Your task to perform on an android device: Go to Android settings Image 0: 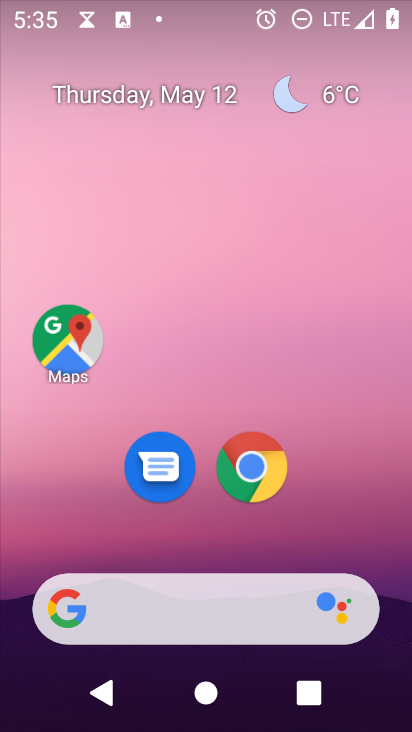
Step 0: drag from (306, 570) to (289, 2)
Your task to perform on an android device: Go to Android settings Image 1: 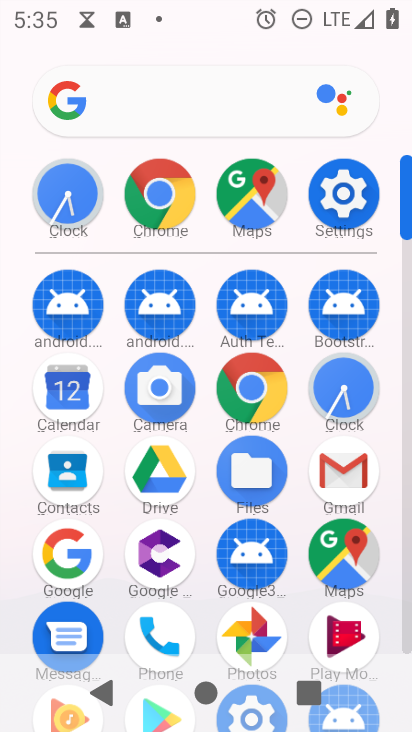
Step 1: click (323, 211)
Your task to perform on an android device: Go to Android settings Image 2: 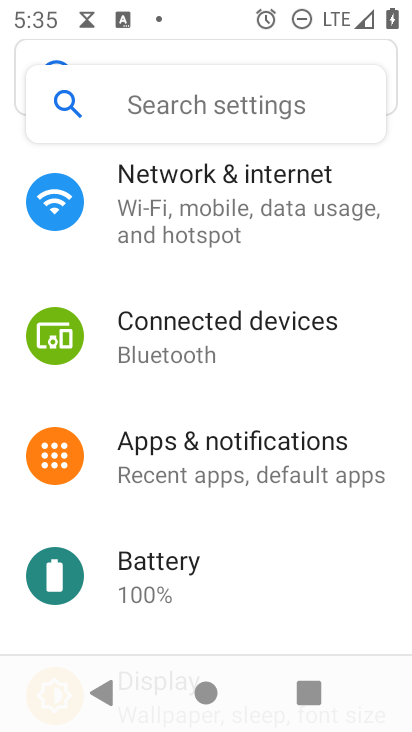
Step 2: drag from (245, 621) to (355, 79)
Your task to perform on an android device: Go to Android settings Image 3: 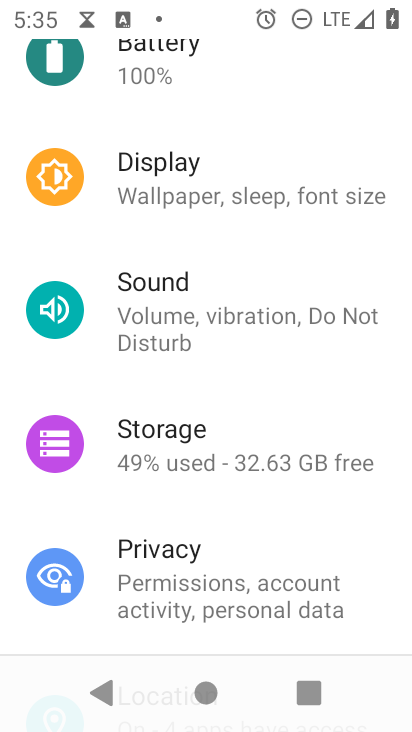
Step 3: drag from (285, 619) to (265, 178)
Your task to perform on an android device: Go to Android settings Image 4: 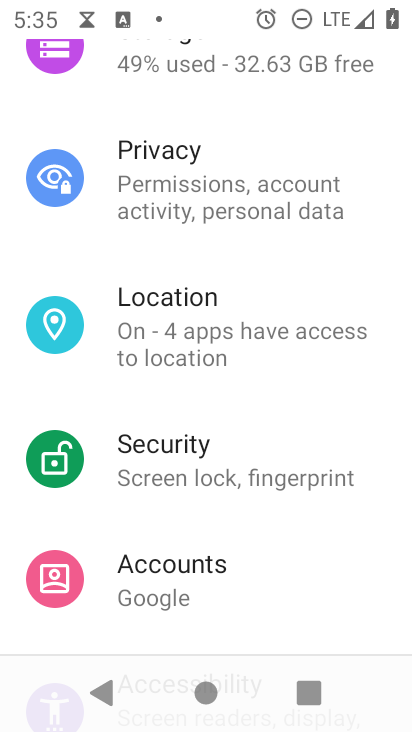
Step 4: drag from (297, 583) to (331, 160)
Your task to perform on an android device: Go to Android settings Image 5: 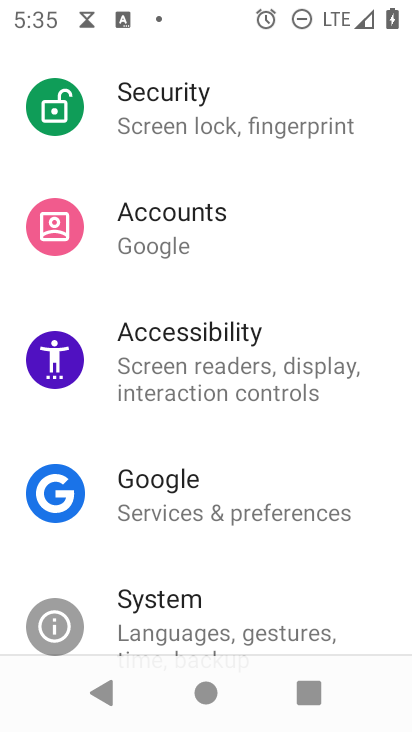
Step 5: drag from (274, 634) to (305, 155)
Your task to perform on an android device: Go to Android settings Image 6: 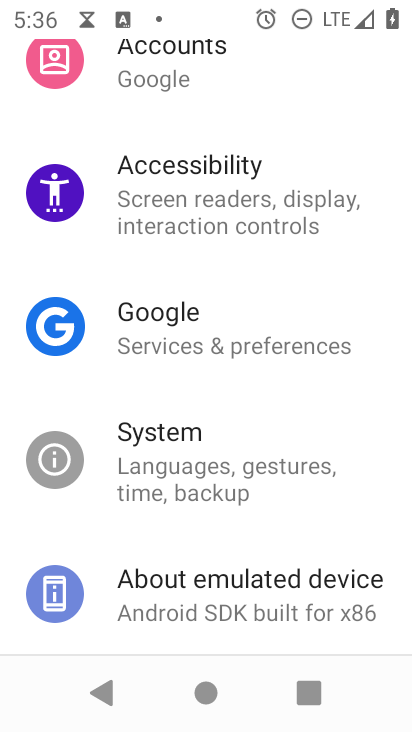
Step 6: click (247, 596)
Your task to perform on an android device: Go to Android settings Image 7: 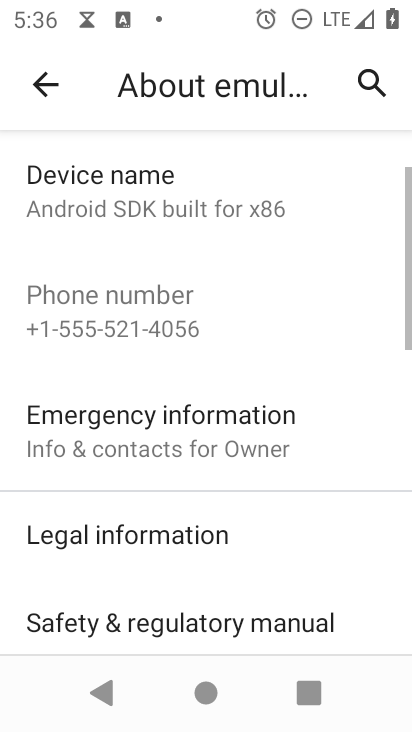
Step 7: drag from (204, 619) to (265, 55)
Your task to perform on an android device: Go to Android settings Image 8: 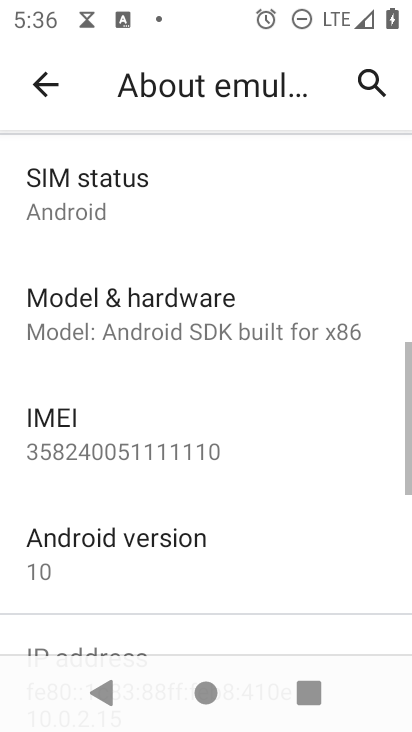
Step 8: drag from (114, 575) to (230, 220)
Your task to perform on an android device: Go to Android settings Image 9: 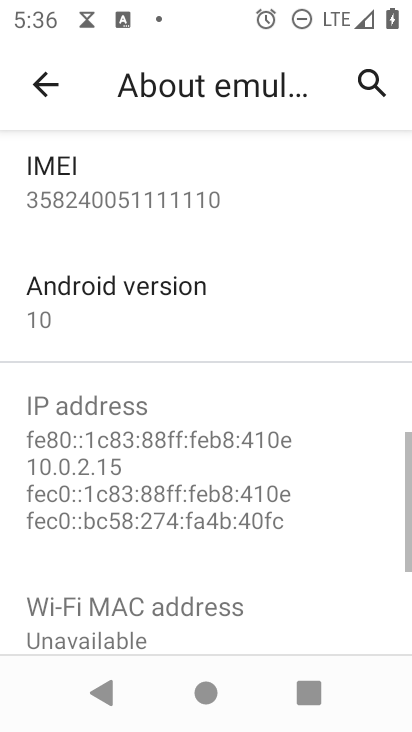
Step 9: click (198, 304)
Your task to perform on an android device: Go to Android settings Image 10: 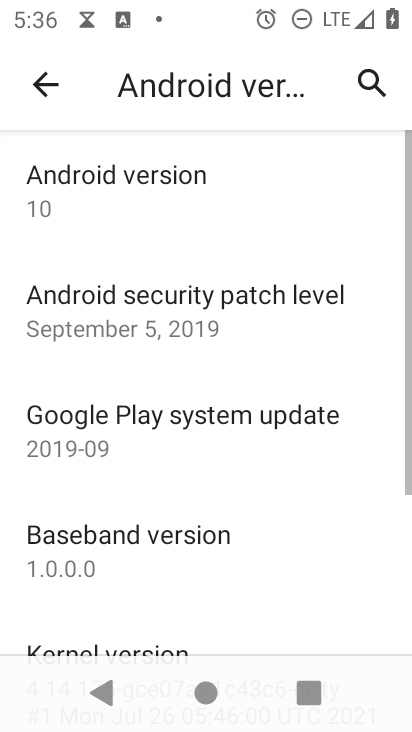
Step 10: task complete